Your task to perform on an android device: Open location settings Image 0: 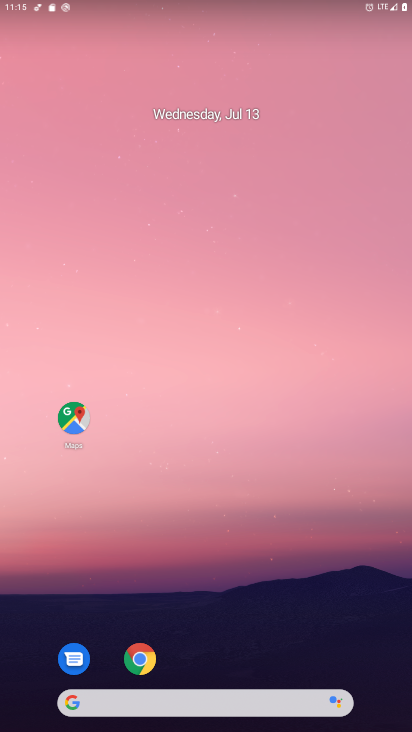
Step 0: press home button
Your task to perform on an android device: Open location settings Image 1: 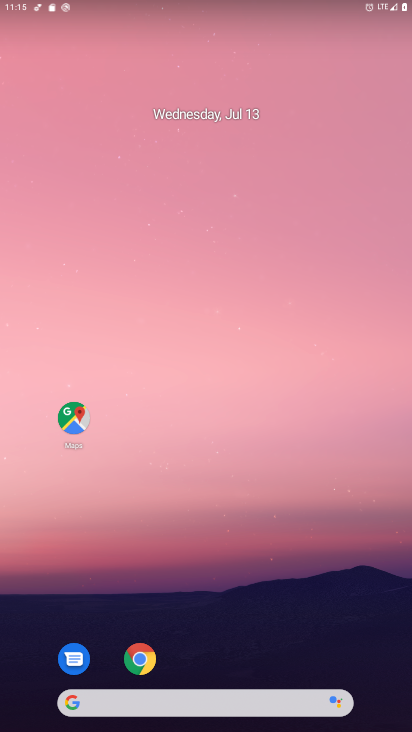
Step 1: drag from (211, 654) to (190, 0)
Your task to perform on an android device: Open location settings Image 2: 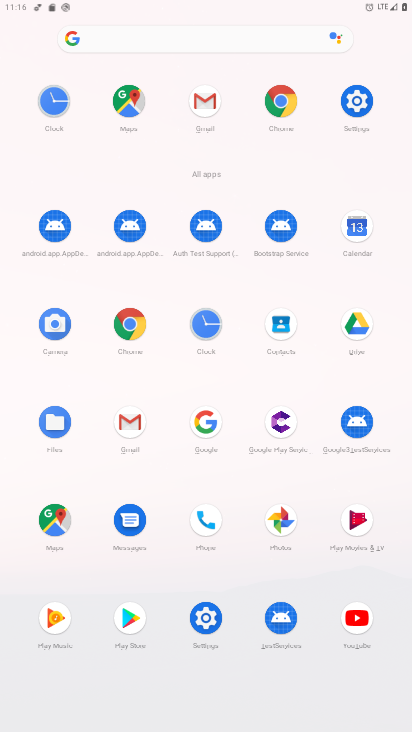
Step 2: click (351, 94)
Your task to perform on an android device: Open location settings Image 3: 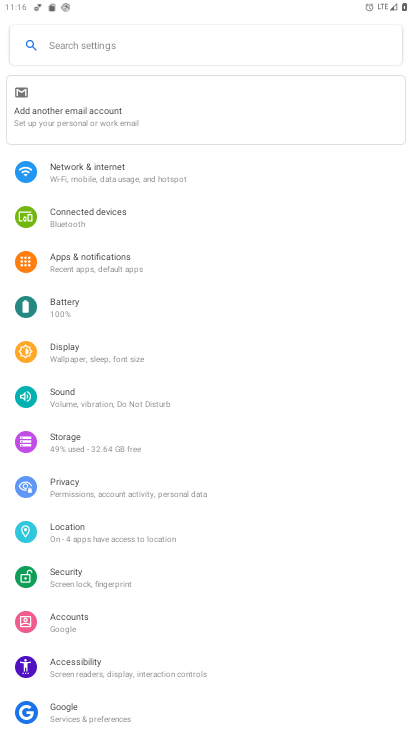
Step 3: click (102, 530)
Your task to perform on an android device: Open location settings Image 4: 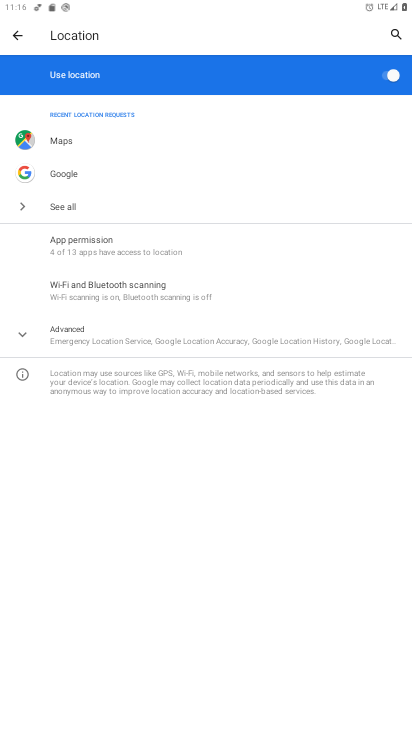
Step 4: click (21, 329)
Your task to perform on an android device: Open location settings Image 5: 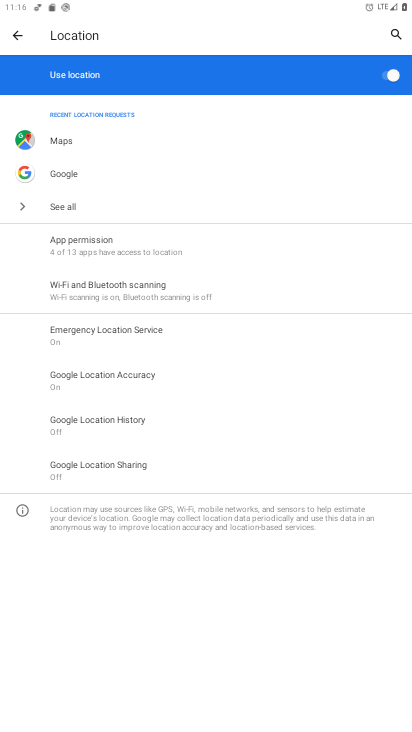
Step 5: task complete